Your task to perform on an android device: Open Android settings Image 0: 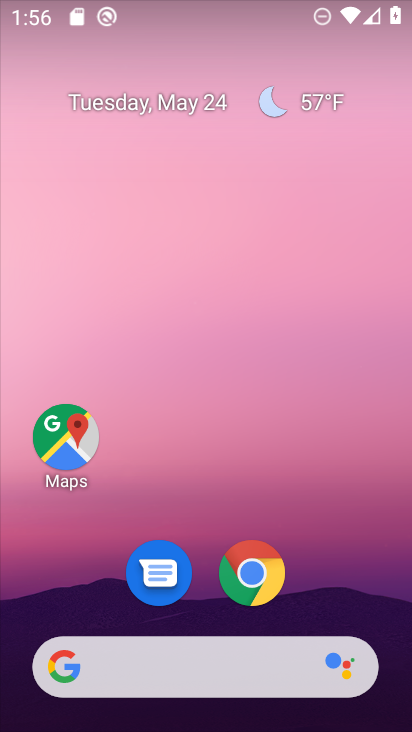
Step 0: drag from (343, 585) to (330, 176)
Your task to perform on an android device: Open Android settings Image 1: 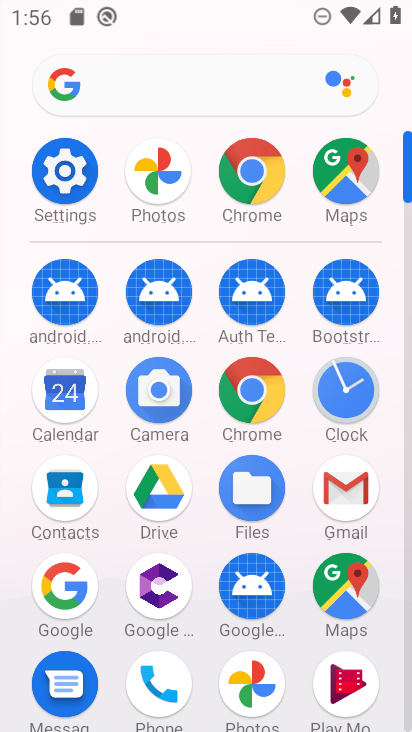
Step 1: click (54, 155)
Your task to perform on an android device: Open Android settings Image 2: 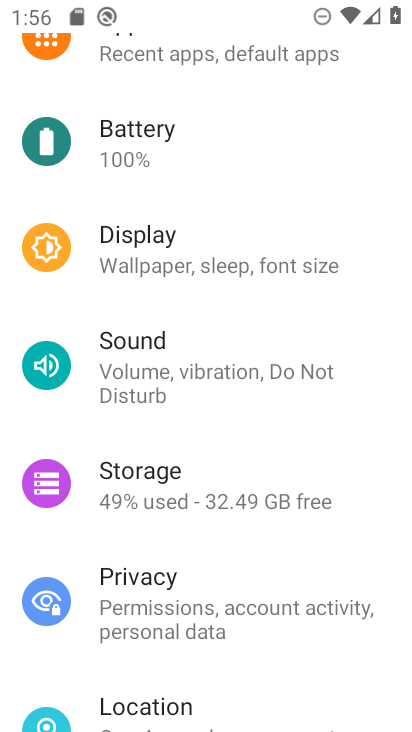
Step 2: drag from (269, 690) to (265, 283)
Your task to perform on an android device: Open Android settings Image 3: 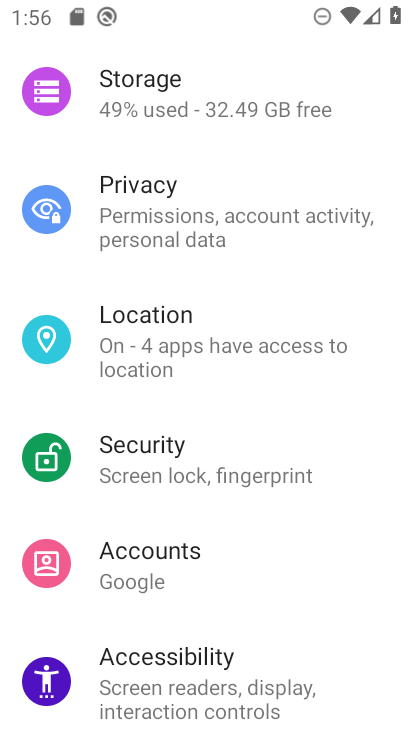
Step 3: drag from (261, 649) to (268, 309)
Your task to perform on an android device: Open Android settings Image 4: 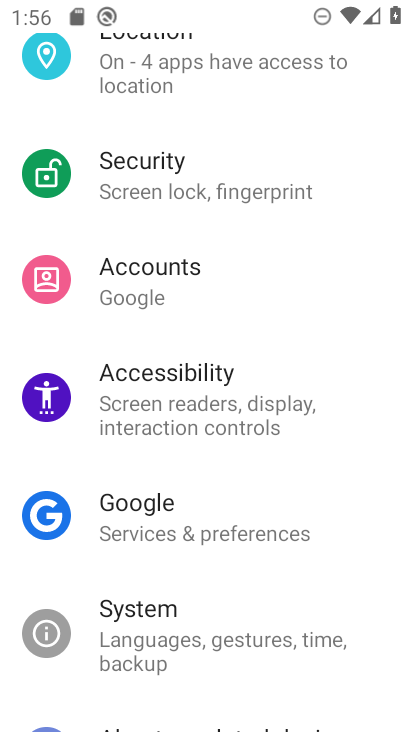
Step 4: drag from (269, 649) to (274, 297)
Your task to perform on an android device: Open Android settings Image 5: 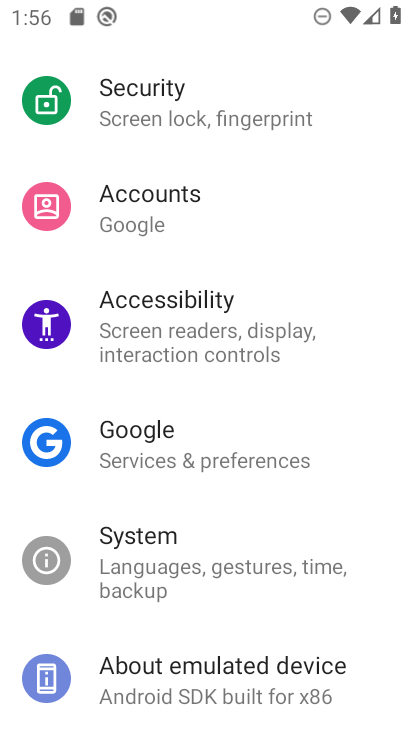
Step 5: click (260, 691)
Your task to perform on an android device: Open Android settings Image 6: 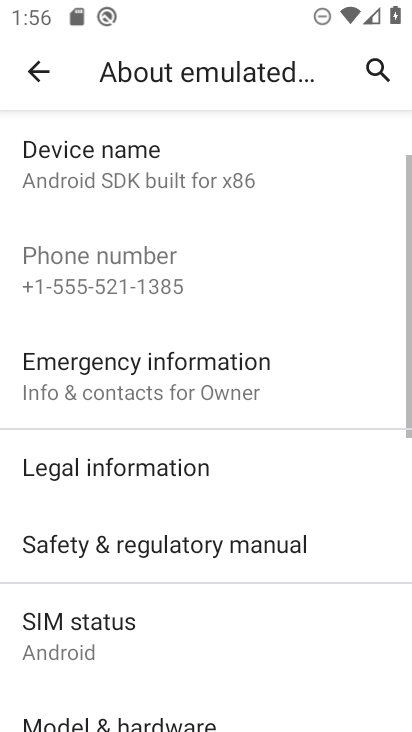
Step 6: task complete